Your task to perform on an android device: Open Chrome and go to the settings page Image 0: 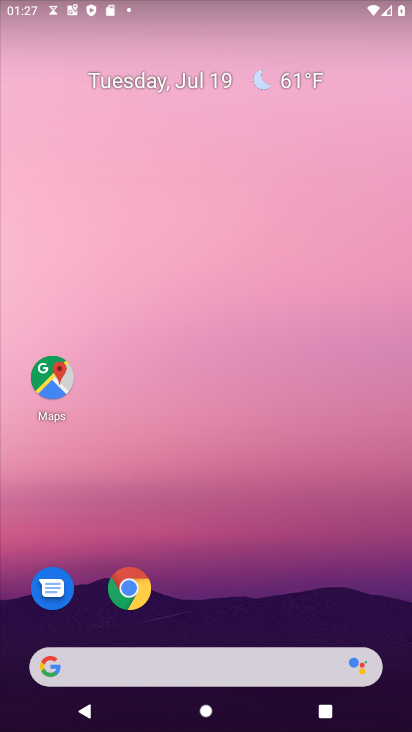
Step 0: drag from (210, 649) to (218, 219)
Your task to perform on an android device: Open Chrome and go to the settings page Image 1: 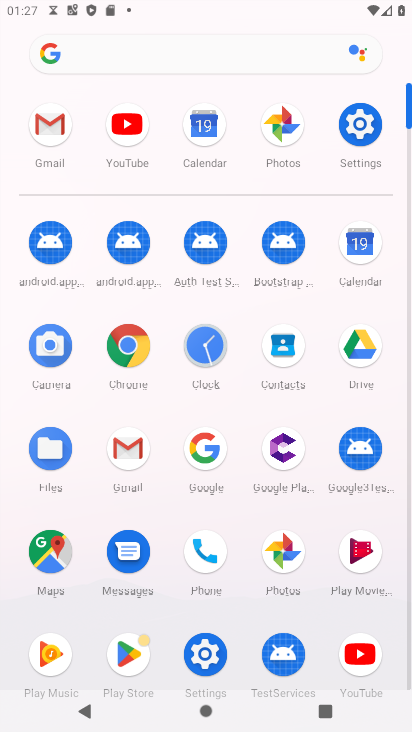
Step 1: click (365, 117)
Your task to perform on an android device: Open Chrome and go to the settings page Image 2: 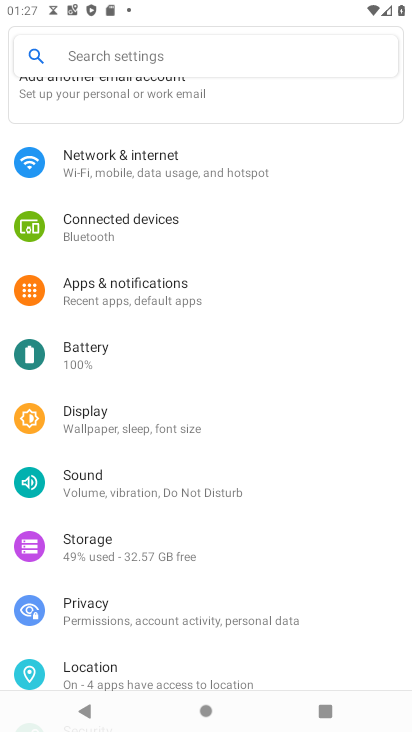
Step 2: press home button
Your task to perform on an android device: Open Chrome and go to the settings page Image 3: 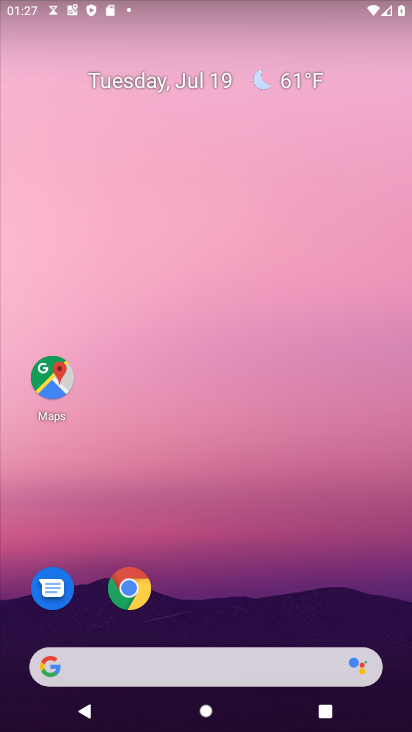
Step 3: click (117, 597)
Your task to perform on an android device: Open Chrome and go to the settings page Image 4: 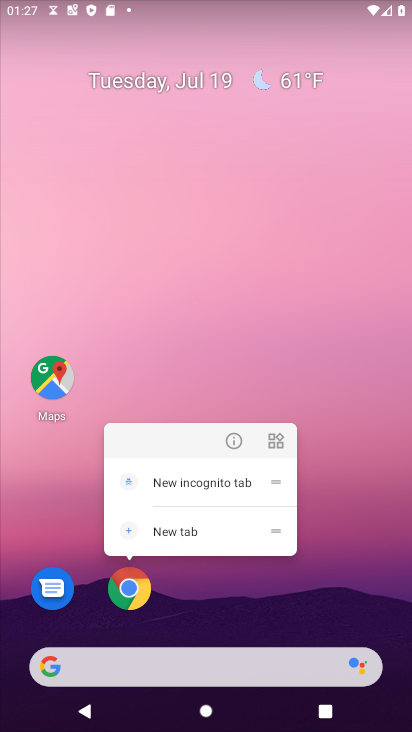
Step 4: click (123, 614)
Your task to perform on an android device: Open Chrome and go to the settings page Image 5: 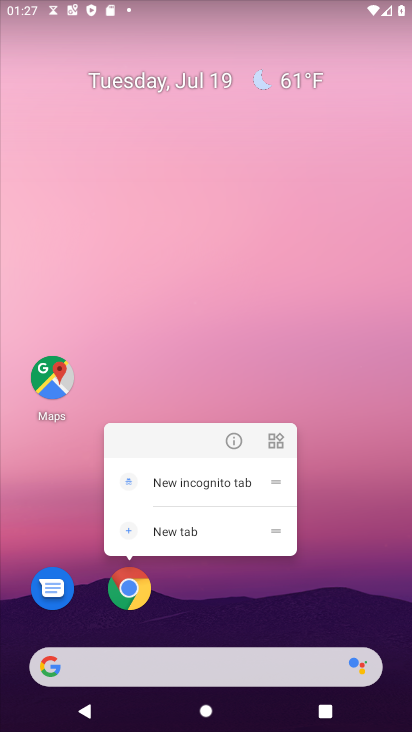
Step 5: click (120, 614)
Your task to perform on an android device: Open Chrome and go to the settings page Image 6: 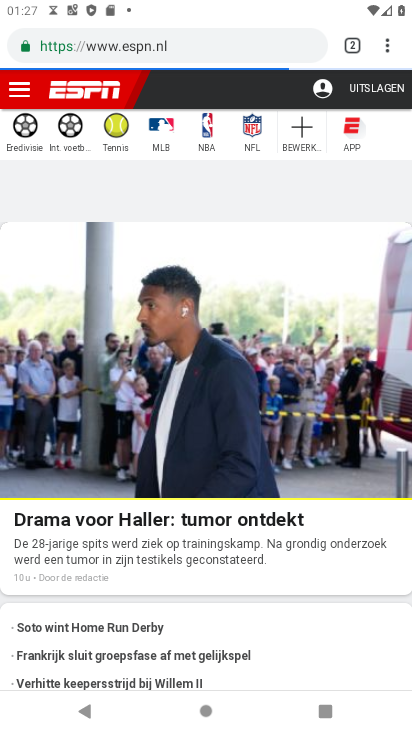
Step 6: click (389, 52)
Your task to perform on an android device: Open Chrome and go to the settings page Image 7: 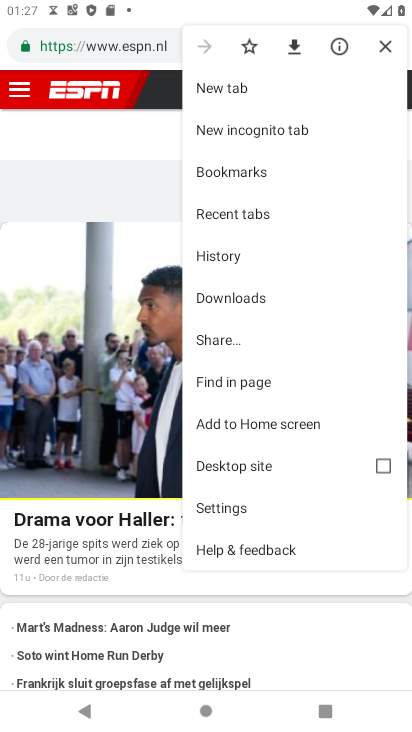
Step 7: click (232, 500)
Your task to perform on an android device: Open Chrome and go to the settings page Image 8: 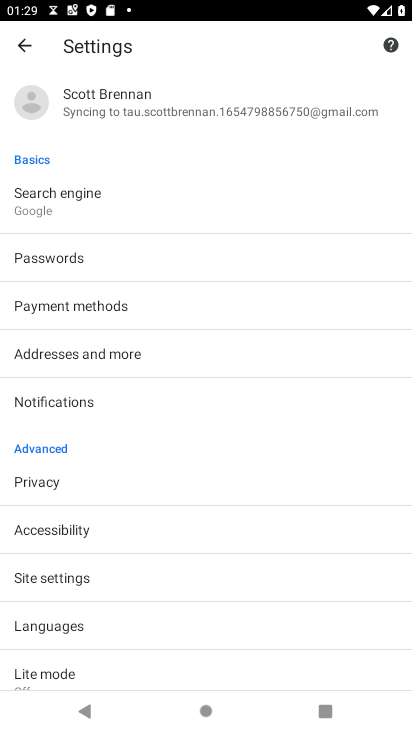
Step 8: task complete